Your task to perform on an android device: Open the web browser Image 0: 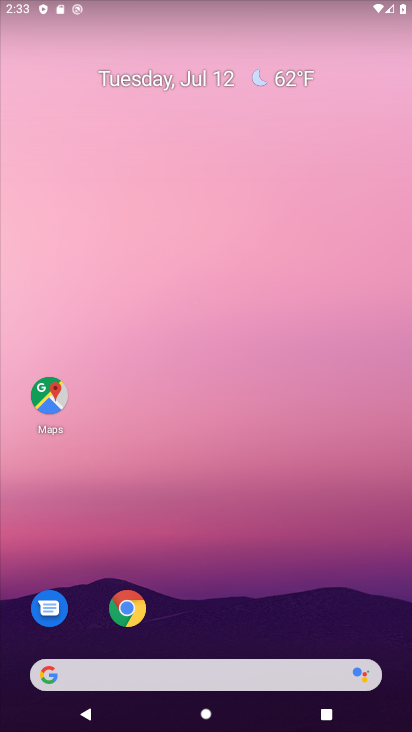
Step 0: click (122, 613)
Your task to perform on an android device: Open the web browser Image 1: 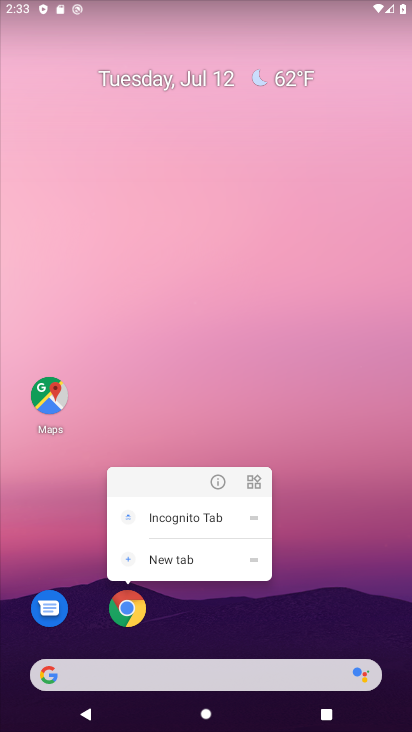
Step 1: click (120, 602)
Your task to perform on an android device: Open the web browser Image 2: 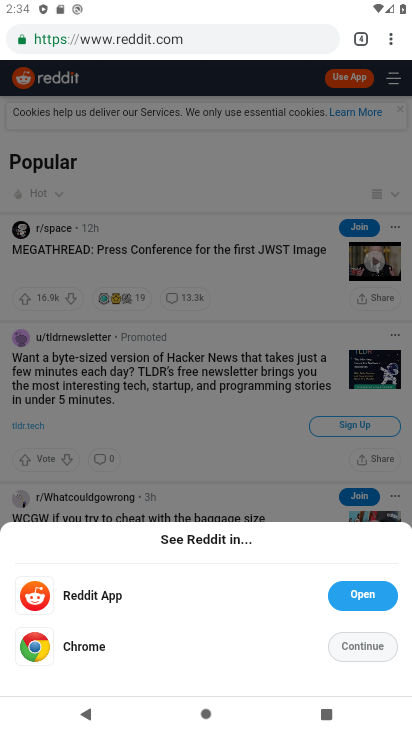
Step 2: task complete